Your task to perform on an android device: Add macbook pro 13 inch to the cart on walmart.com Image 0: 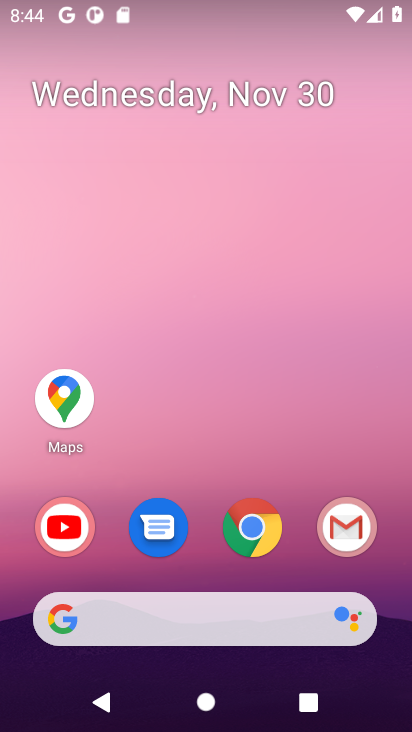
Step 0: click (260, 524)
Your task to perform on an android device: Add macbook pro 13 inch to the cart on walmart.com Image 1: 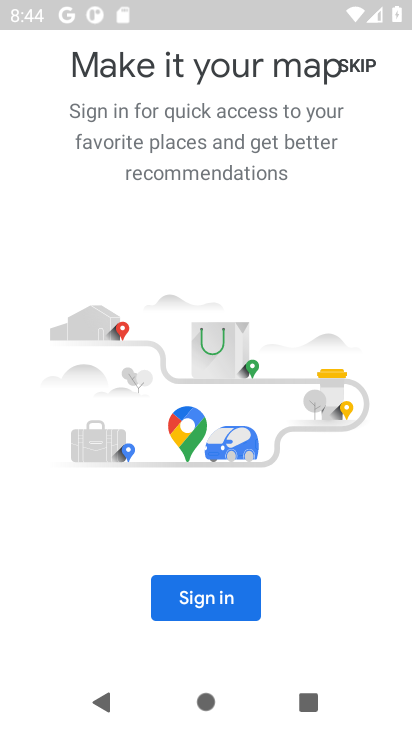
Step 1: press home button
Your task to perform on an android device: Add macbook pro 13 inch to the cart on walmart.com Image 2: 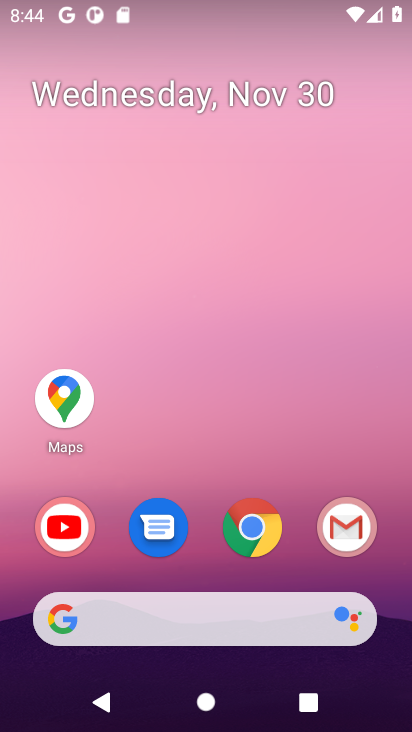
Step 2: click (253, 528)
Your task to perform on an android device: Add macbook pro 13 inch to the cart on walmart.com Image 3: 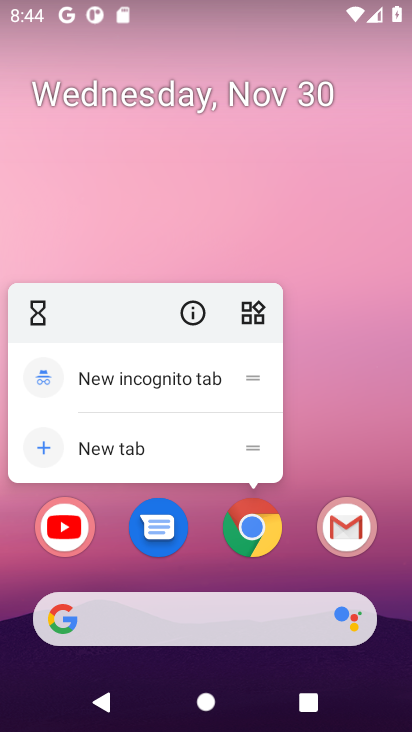
Step 3: click (253, 528)
Your task to perform on an android device: Add macbook pro 13 inch to the cart on walmart.com Image 4: 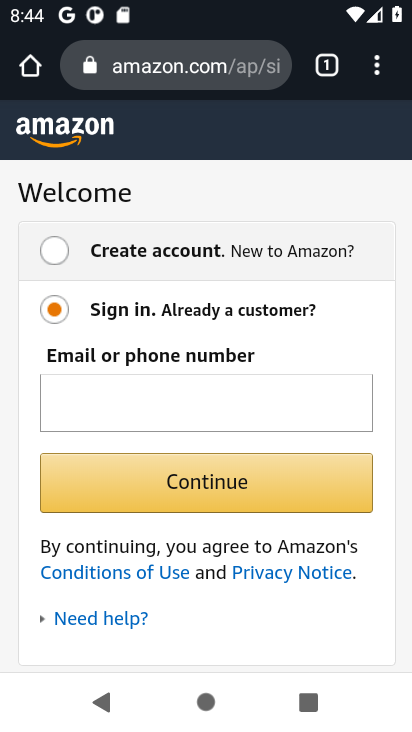
Step 4: click (227, 60)
Your task to perform on an android device: Add macbook pro 13 inch to the cart on walmart.com Image 5: 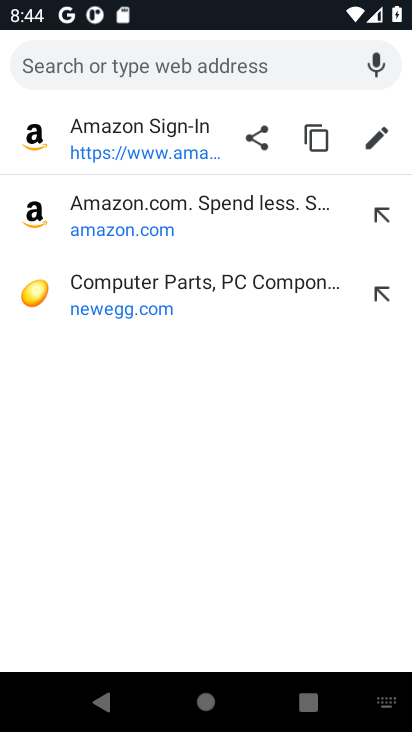
Step 5: type "walmart.com"
Your task to perform on an android device: Add macbook pro 13 inch to the cart on walmart.com Image 6: 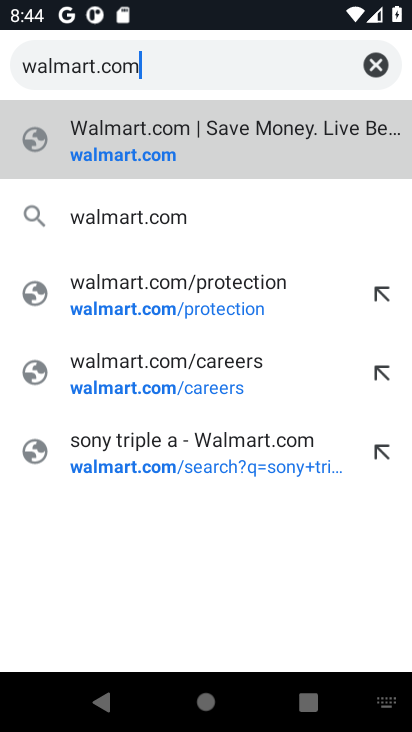
Step 6: press enter
Your task to perform on an android device: Add macbook pro 13 inch to the cart on walmart.com Image 7: 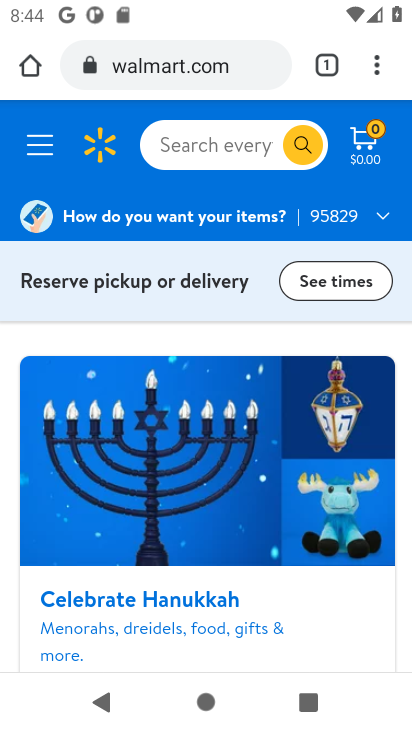
Step 7: click (231, 136)
Your task to perform on an android device: Add macbook pro 13 inch to the cart on walmart.com Image 8: 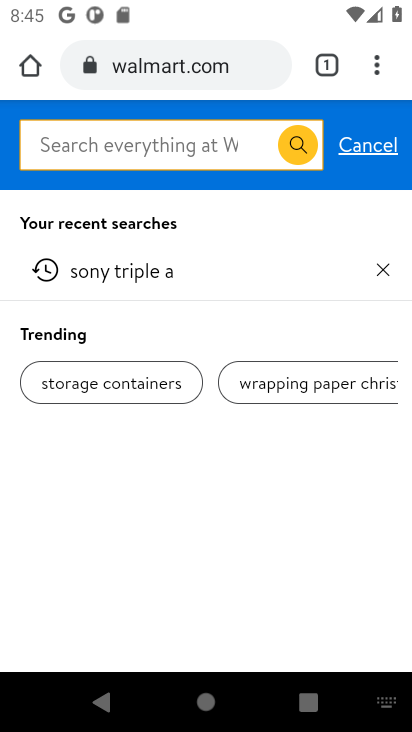
Step 8: type "macbook pro 13 inch"
Your task to perform on an android device: Add macbook pro 13 inch to the cart on walmart.com Image 9: 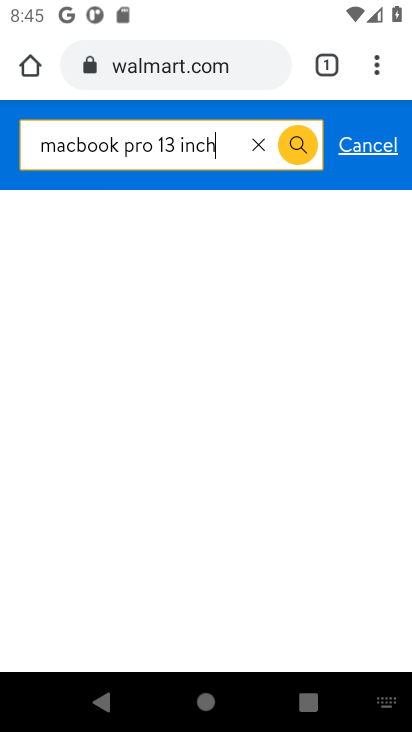
Step 9: press enter
Your task to perform on an android device: Add macbook pro 13 inch to the cart on walmart.com Image 10: 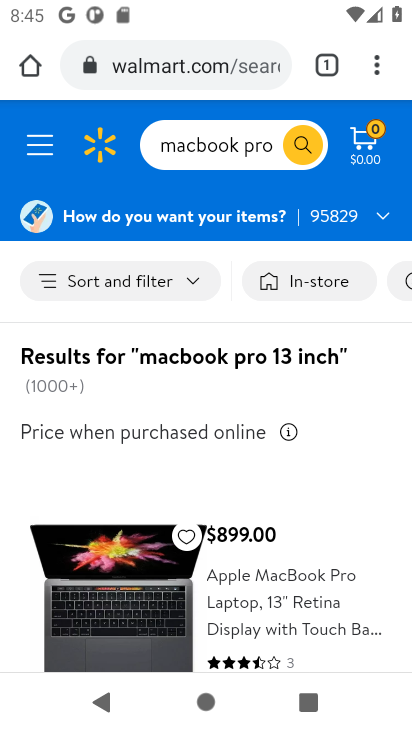
Step 10: click (135, 593)
Your task to perform on an android device: Add macbook pro 13 inch to the cart on walmart.com Image 11: 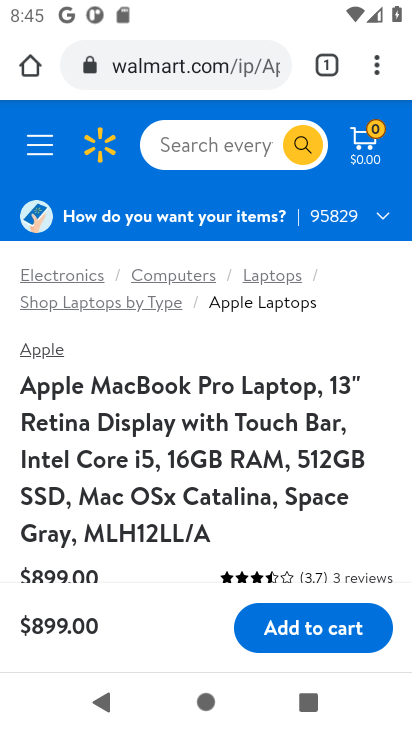
Step 11: drag from (374, 510) to (410, 478)
Your task to perform on an android device: Add macbook pro 13 inch to the cart on walmart.com Image 12: 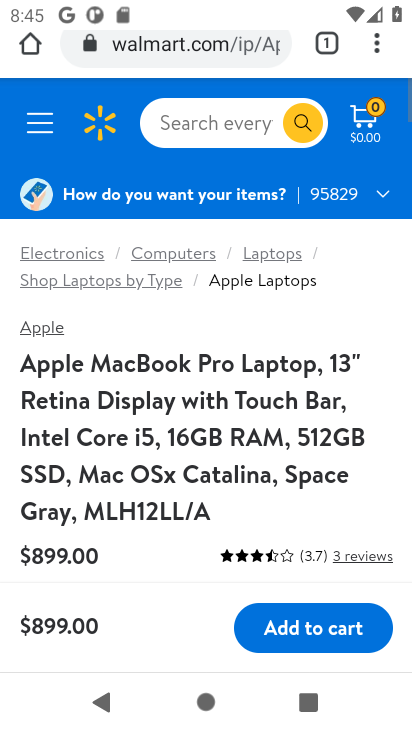
Step 12: drag from (387, 514) to (395, 142)
Your task to perform on an android device: Add macbook pro 13 inch to the cart on walmart.com Image 13: 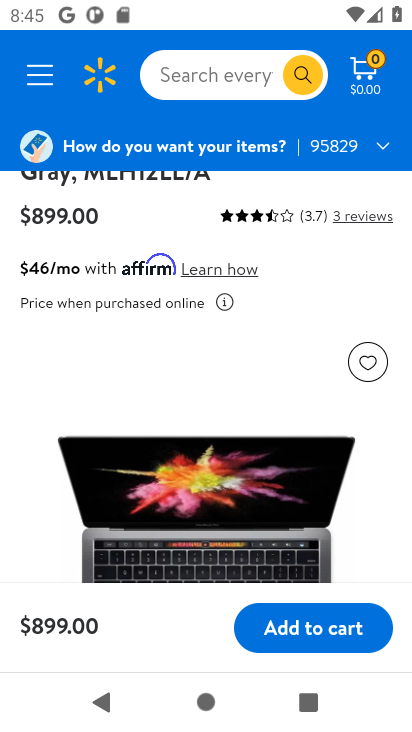
Step 13: drag from (349, 539) to (409, 102)
Your task to perform on an android device: Add macbook pro 13 inch to the cart on walmart.com Image 14: 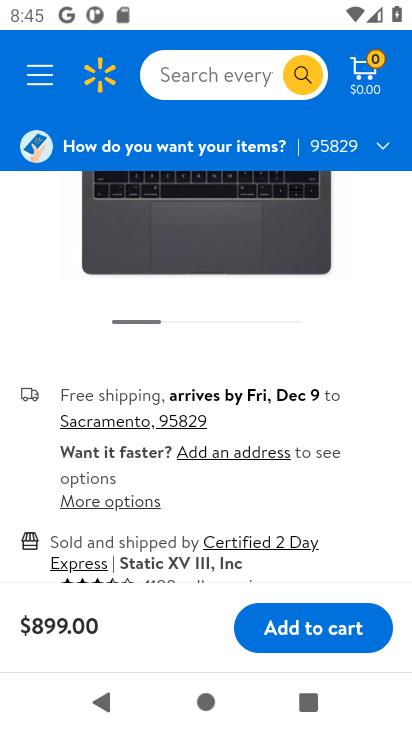
Step 14: click (340, 626)
Your task to perform on an android device: Add macbook pro 13 inch to the cart on walmart.com Image 15: 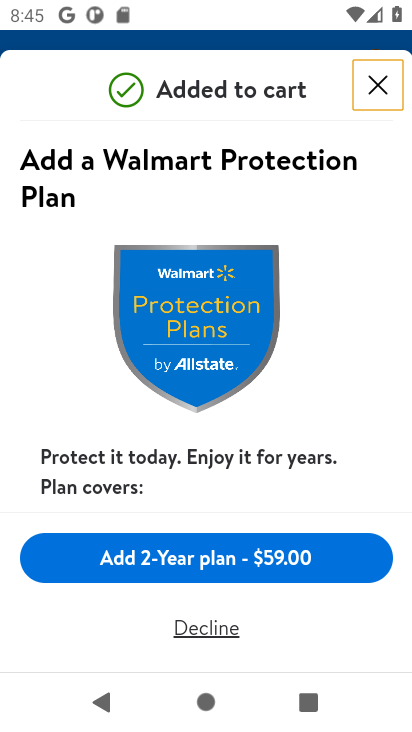
Step 15: task complete